Your task to perform on an android device: Search for vegetarian restaurants on Maps Image 0: 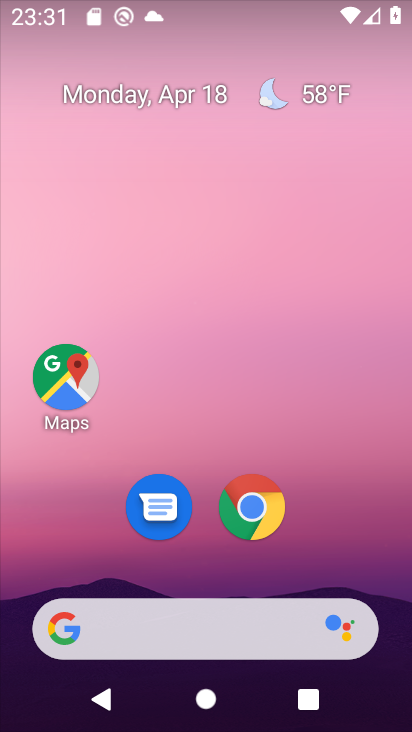
Step 0: click (65, 392)
Your task to perform on an android device: Search for vegetarian restaurants on Maps Image 1: 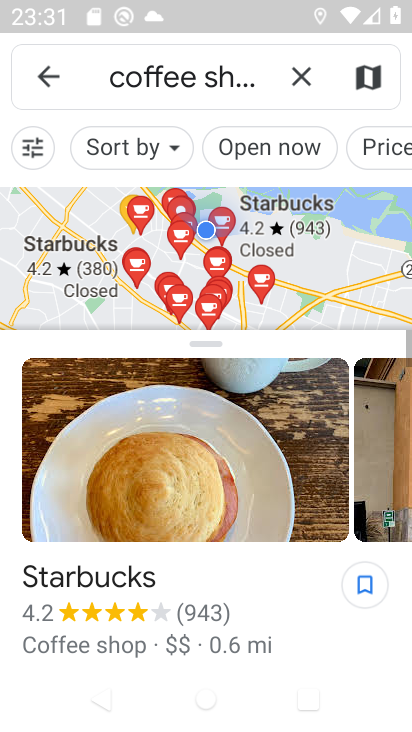
Step 1: click (298, 73)
Your task to perform on an android device: Search for vegetarian restaurants on Maps Image 2: 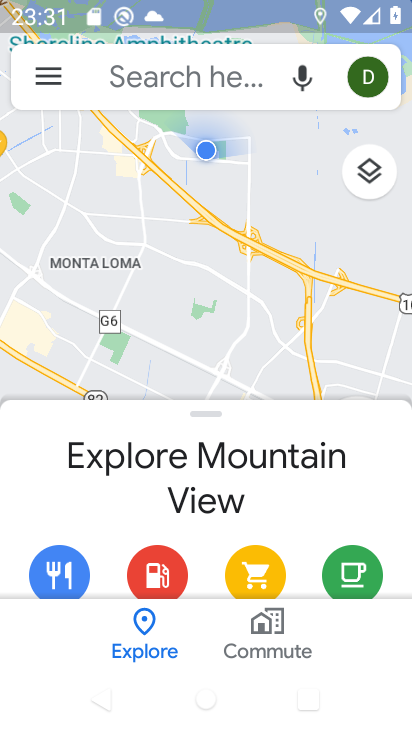
Step 2: click (147, 77)
Your task to perform on an android device: Search for vegetarian restaurants on Maps Image 3: 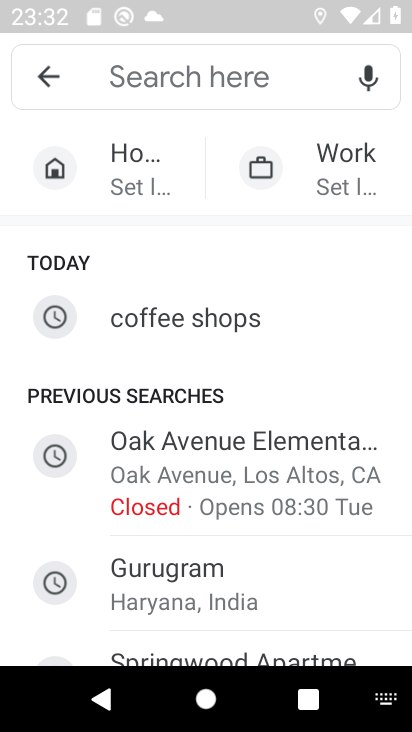
Step 3: type "vegetarian restaurants"
Your task to perform on an android device: Search for vegetarian restaurants on Maps Image 4: 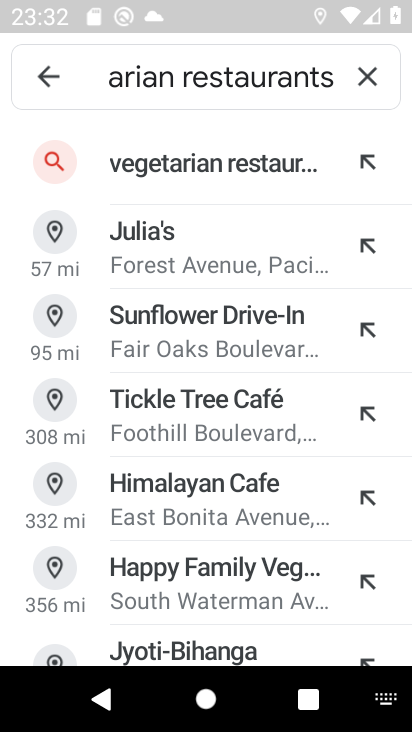
Step 4: click (189, 161)
Your task to perform on an android device: Search for vegetarian restaurants on Maps Image 5: 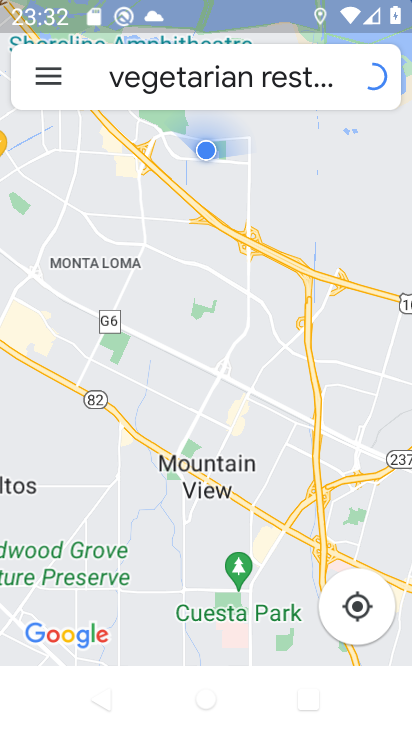
Step 5: click (191, 177)
Your task to perform on an android device: Search for vegetarian restaurants on Maps Image 6: 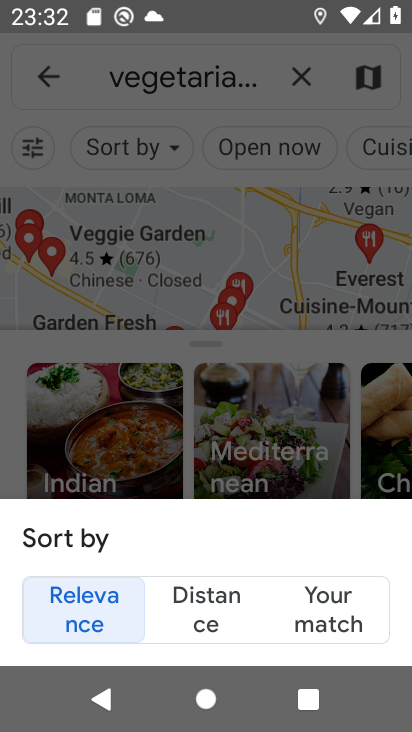
Step 6: task complete